Your task to perform on an android device: Open CNN.com Image 0: 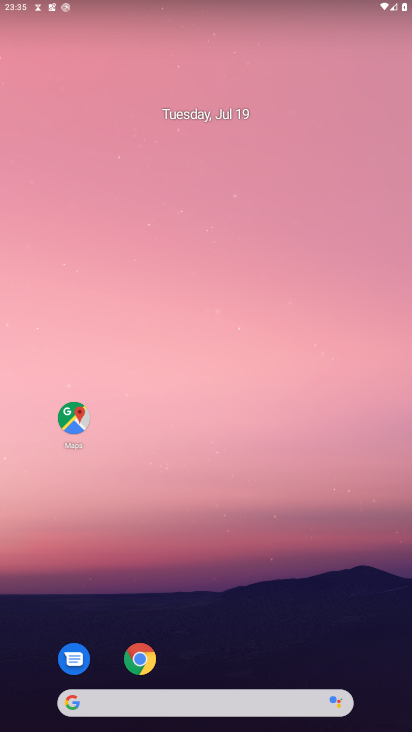
Step 0: click (136, 663)
Your task to perform on an android device: Open CNN.com Image 1: 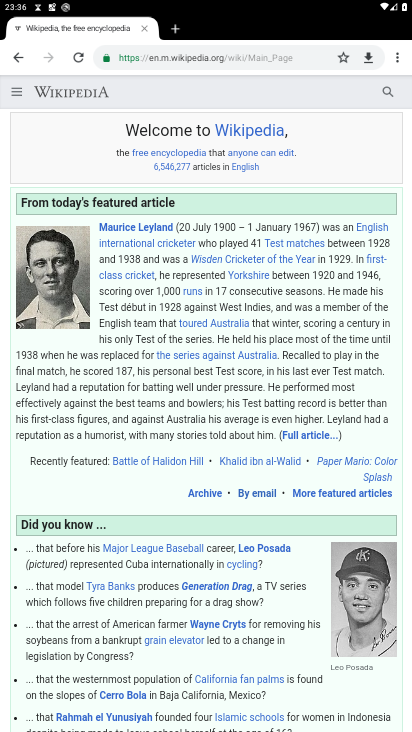
Step 1: click (235, 53)
Your task to perform on an android device: Open CNN.com Image 2: 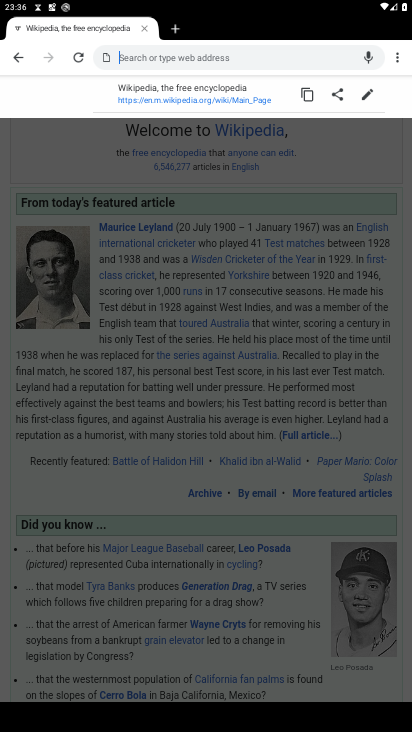
Step 2: type "cnn.com"
Your task to perform on an android device: Open CNN.com Image 3: 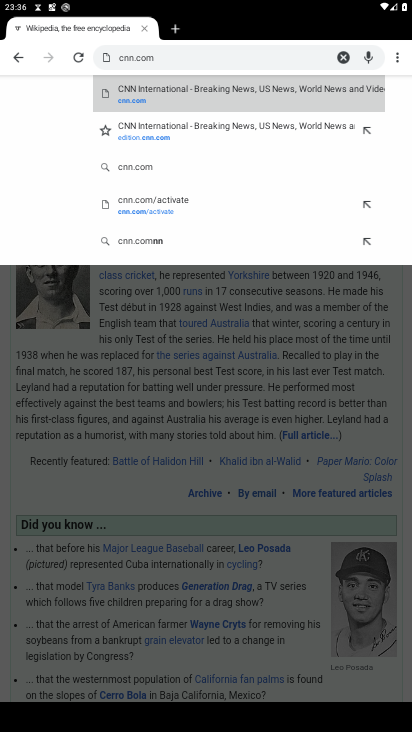
Step 3: click (157, 99)
Your task to perform on an android device: Open CNN.com Image 4: 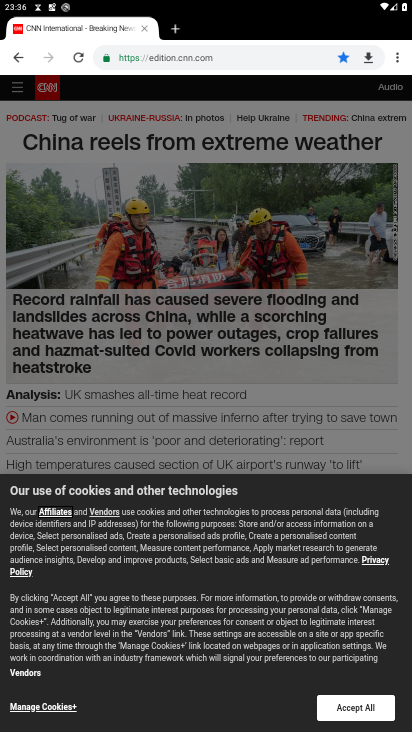
Step 4: task complete